Your task to perform on an android device: Open Youtube and go to "Your channel" Image 0: 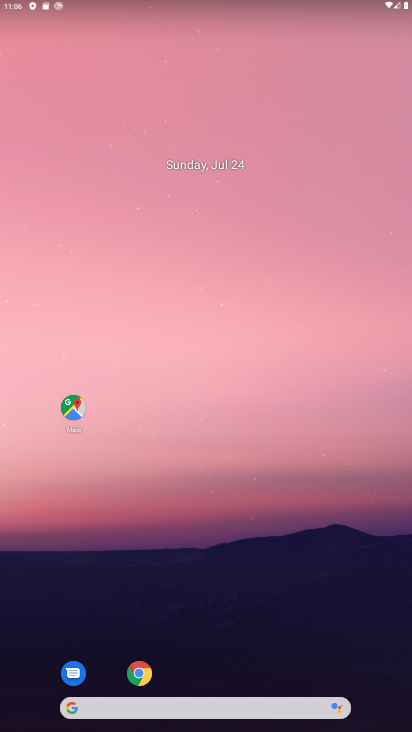
Step 0: drag from (224, 711) to (201, 244)
Your task to perform on an android device: Open Youtube and go to "Your channel" Image 1: 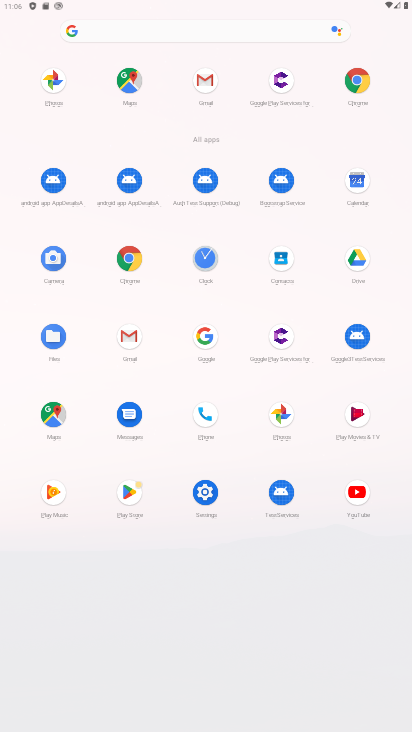
Step 1: click (358, 491)
Your task to perform on an android device: Open Youtube and go to "Your channel" Image 2: 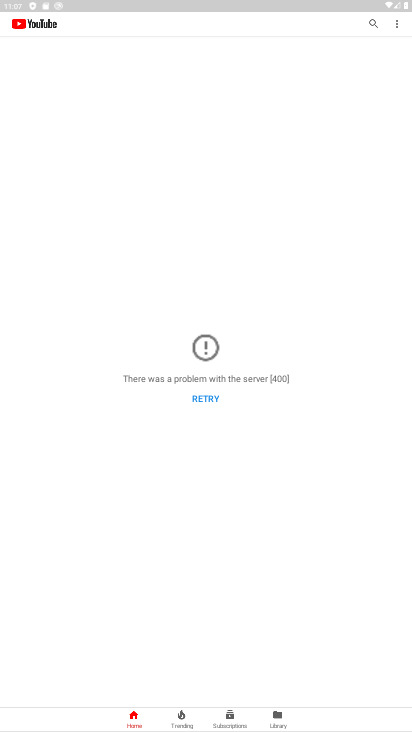
Step 2: click (207, 397)
Your task to perform on an android device: Open Youtube and go to "Your channel" Image 3: 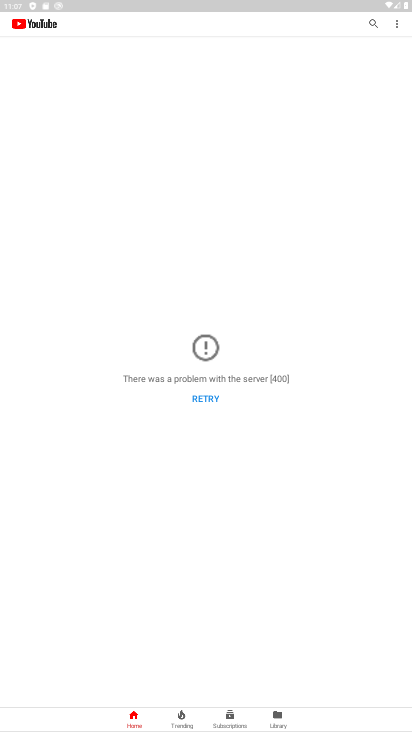
Step 3: click (207, 397)
Your task to perform on an android device: Open Youtube and go to "Your channel" Image 4: 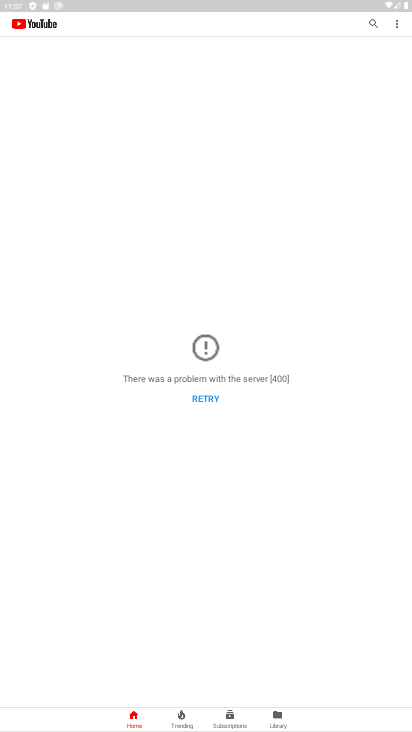
Step 4: task complete